Your task to perform on an android device: Open the map Image 0: 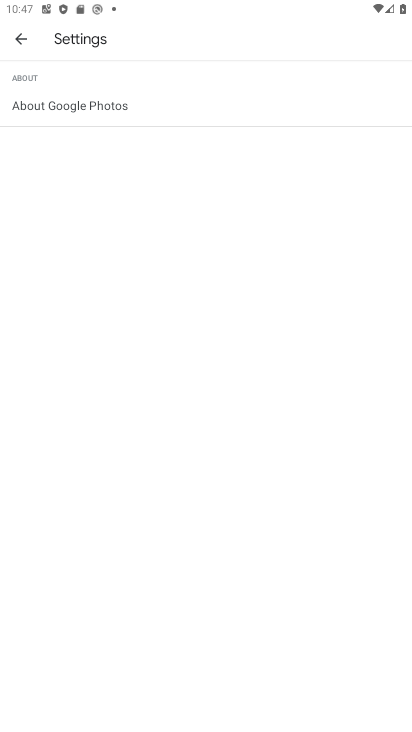
Step 0: press home button
Your task to perform on an android device: Open the map Image 1: 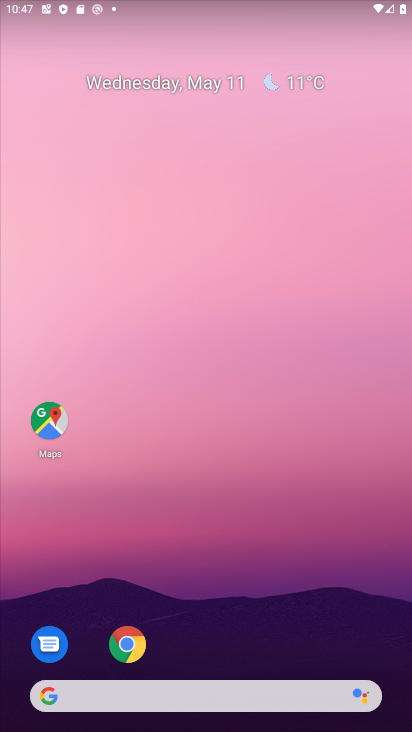
Step 1: click (51, 425)
Your task to perform on an android device: Open the map Image 2: 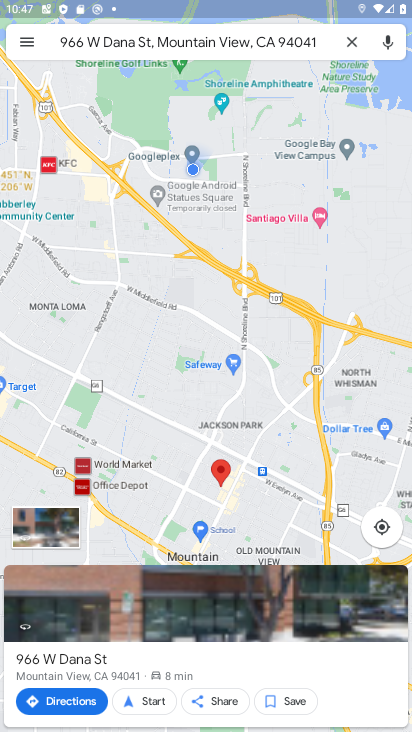
Step 2: press back button
Your task to perform on an android device: Open the map Image 3: 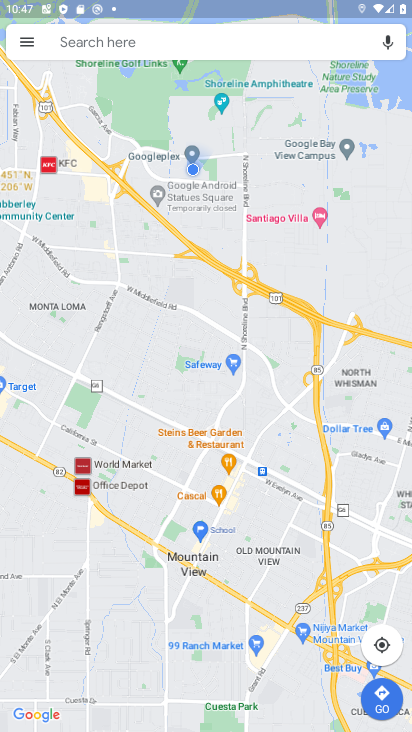
Step 3: click (15, 39)
Your task to perform on an android device: Open the map Image 4: 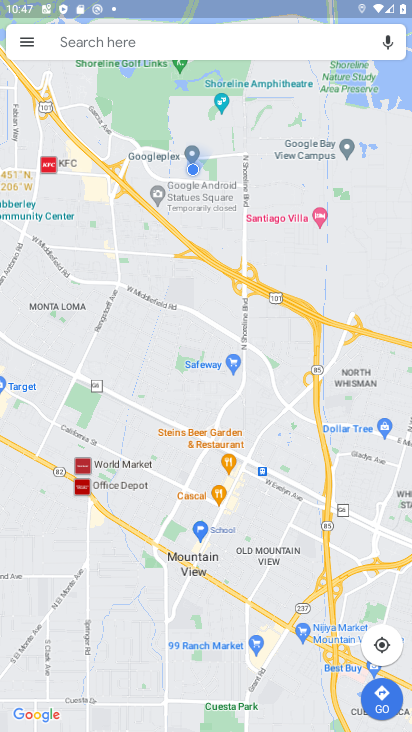
Step 4: task complete